Your task to perform on an android device: set the timer Image 0: 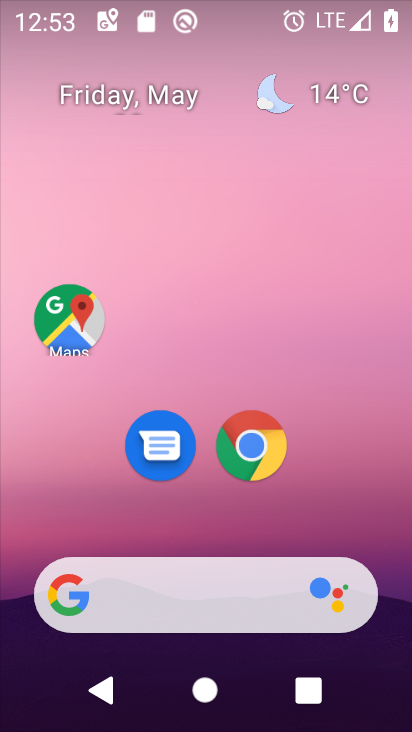
Step 0: drag from (31, 515) to (257, 180)
Your task to perform on an android device: set the timer Image 1: 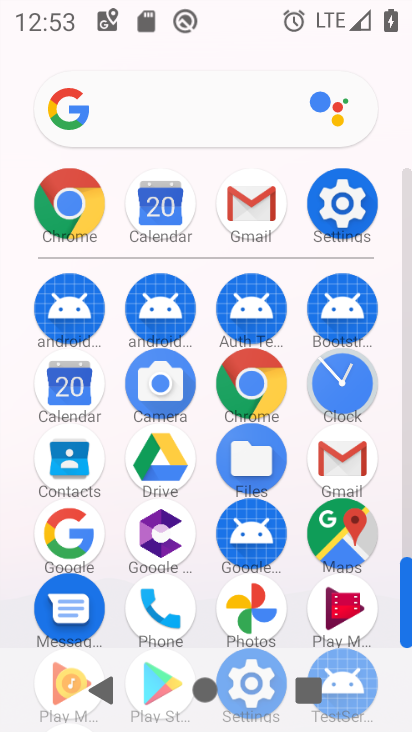
Step 1: click (355, 368)
Your task to perform on an android device: set the timer Image 2: 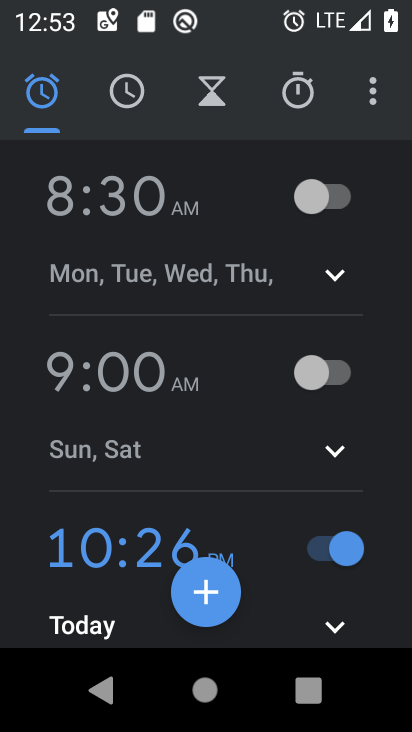
Step 2: click (372, 97)
Your task to perform on an android device: set the timer Image 3: 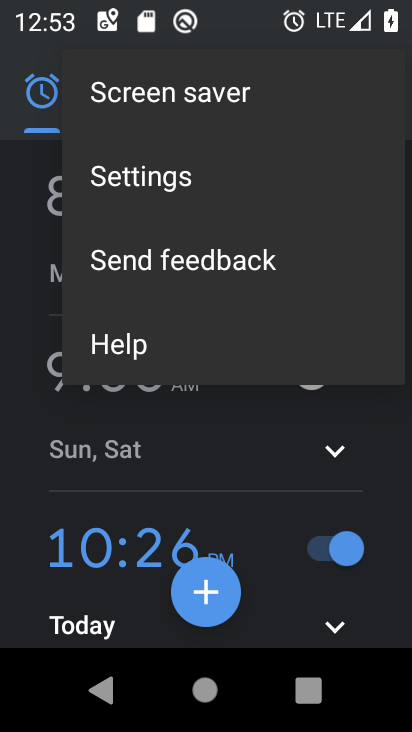
Step 3: press back button
Your task to perform on an android device: set the timer Image 4: 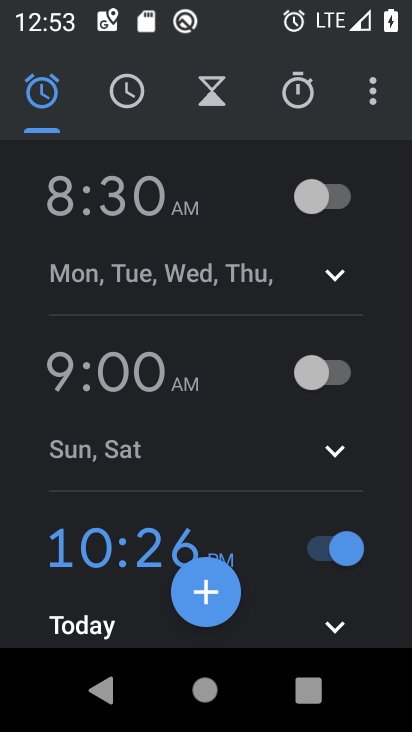
Step 4: click (209, 107)
Your task to perform on an android device: set the timer Image 5: 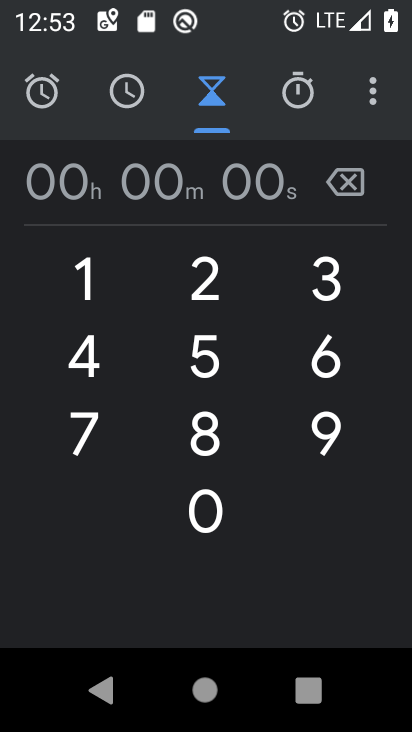
Step 5: click (112, 285)
Your task to perform on an android device: set the timer Image 6: 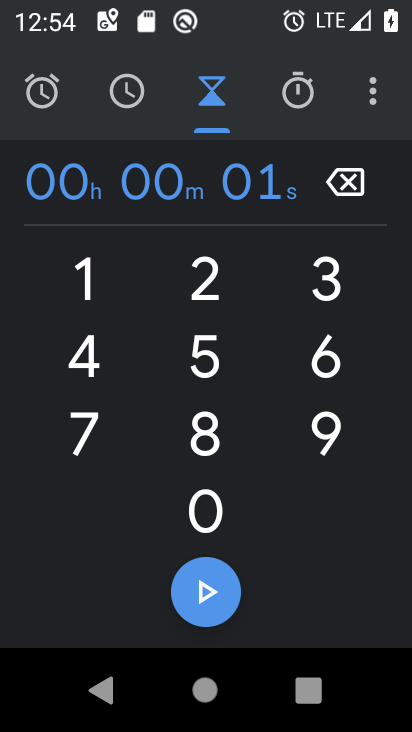
Step 6: click (217, 513)
Your task to perform on an android device: set the timer Image 7: 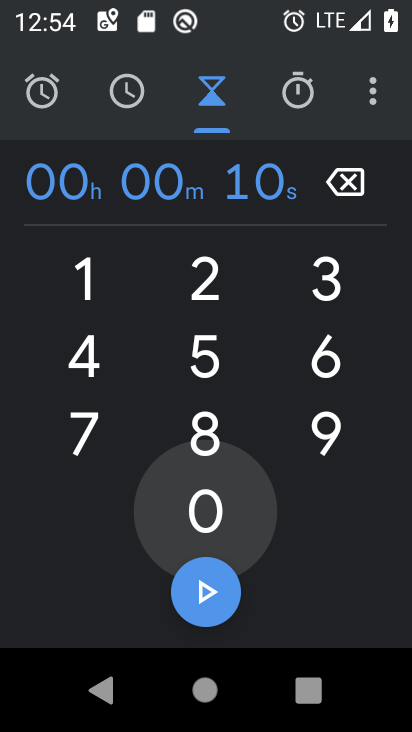
Step 7: click (217, 513)
Your task to perform on an android device: set the timer Image 8: 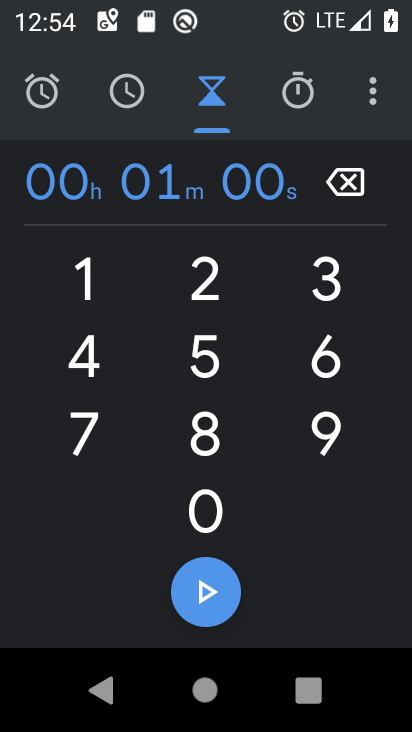
Step 8: click (217, 513)
Your task to perform on an android device: set the timer Image 9: 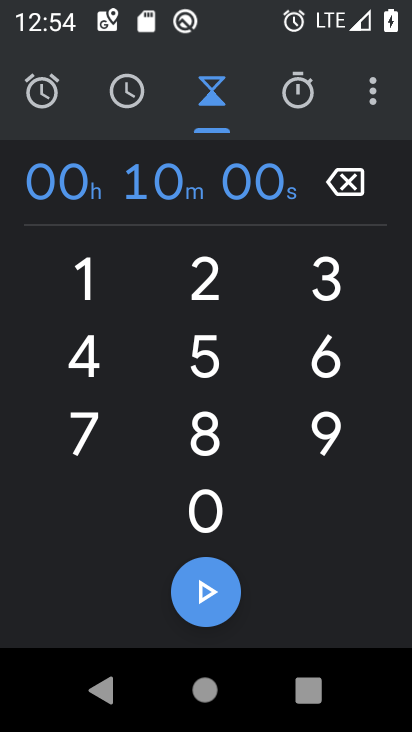
Step 9: click (217, 513)
Your task to perform on an android device: set the timer Image 10: 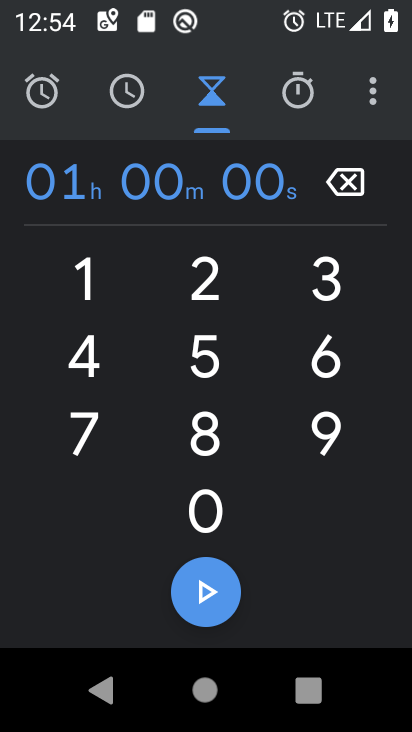
Step 10: click (191, 581)
Your task to perform on an android device: set the timer Image 11: 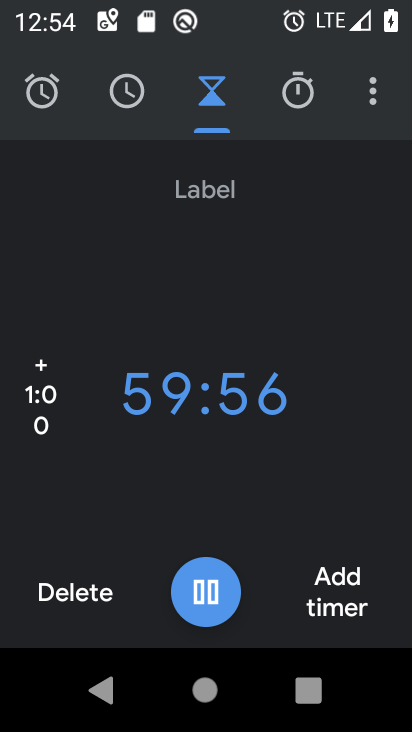
Step 11: task complete